Your task to perform on an android device: set default search engine in the chrome app Image 0: 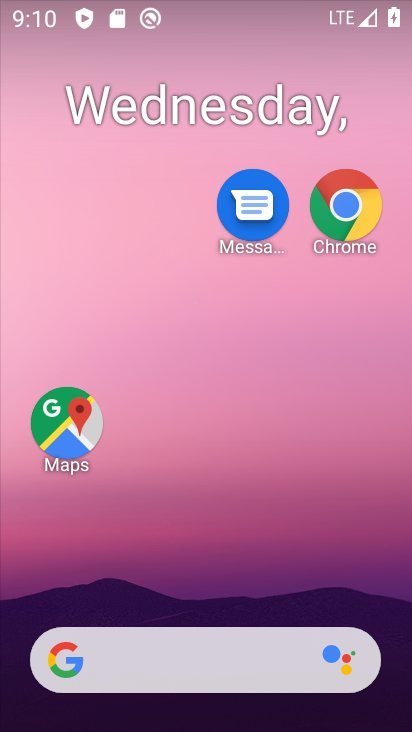
Step 0: drag from (183, 589) to (224, 202)
Your task to perform on an android device: set default search engine in the chrome app Image 1: 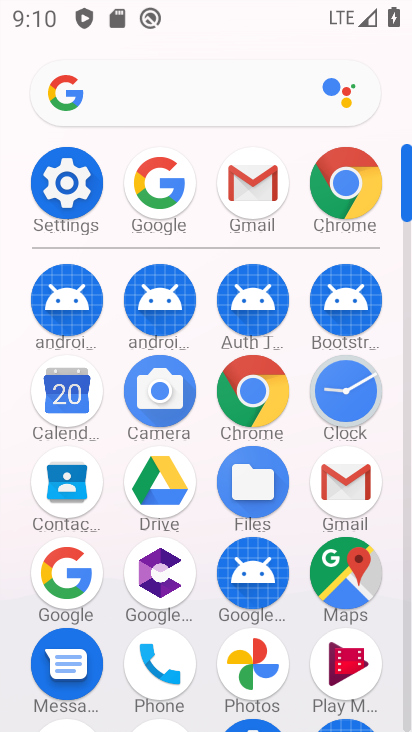
Step 1: click (252, 390)
Your task to perform on an android device: set default search engine in the chrome app Image 2: 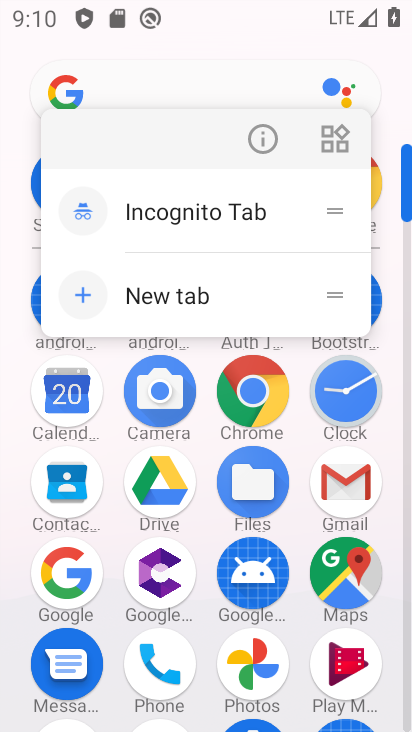
Step 2: click (264, 130)
Your task to perform on an android device: set default search engine in the chrome app Image 3: 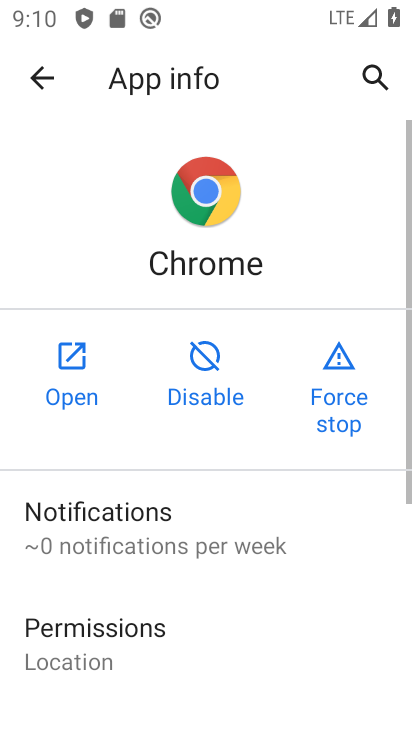
Step 3: click (55, 374)
Your task to perform on an android device: set default search engine in the chrome app Image 4: 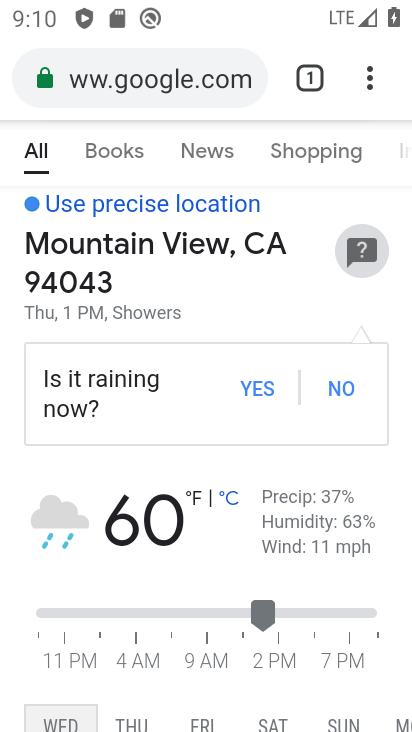
Step 4: drag from (232, 294) to (222, 464)
Your task to perform on an android device: set default search engine in the chrome app Image 5: 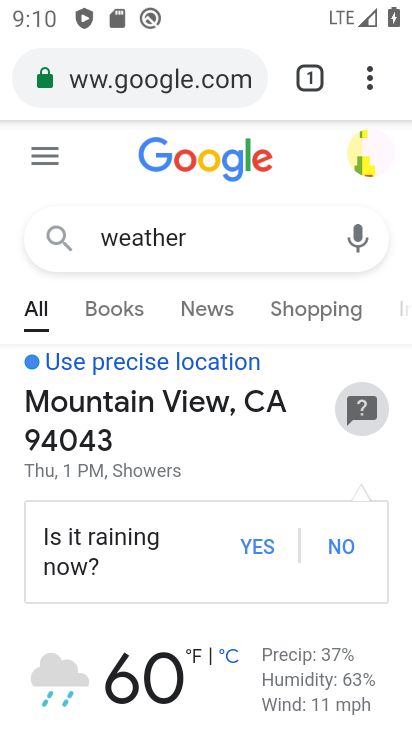
Step 5: drag from (380, 75) to (169, 624)
Your task to perform on an android device: set default search engine in the chrome app Image 6: 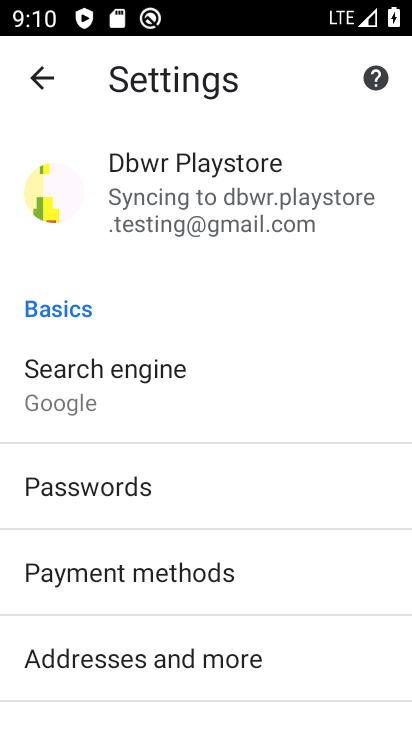
Step 6: click (124, 401)
Your task to perform on an android device: set default search engine in the chrome app Image 7: 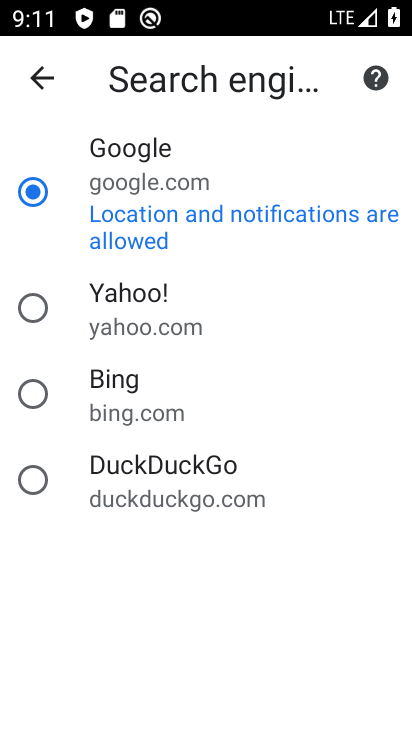
Step 7: task complete